Your task to perform on an android device: move an email to a new category in the gmail app Image 0: 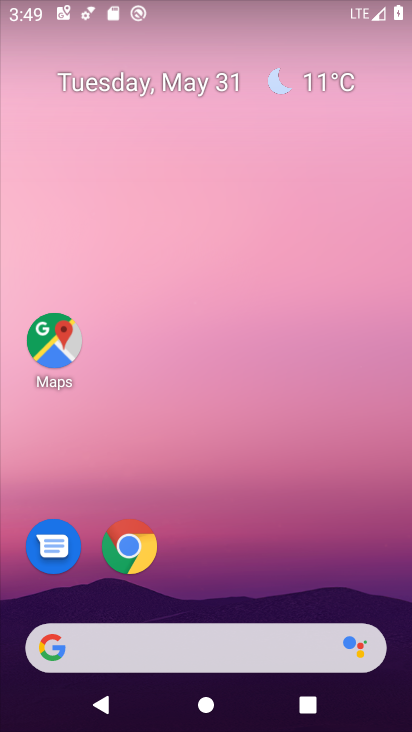
Step 0: drag from (274, 329) to (178, 27)
Your task to perform on an android device: move an email to a new category in the gmail app Image 1: 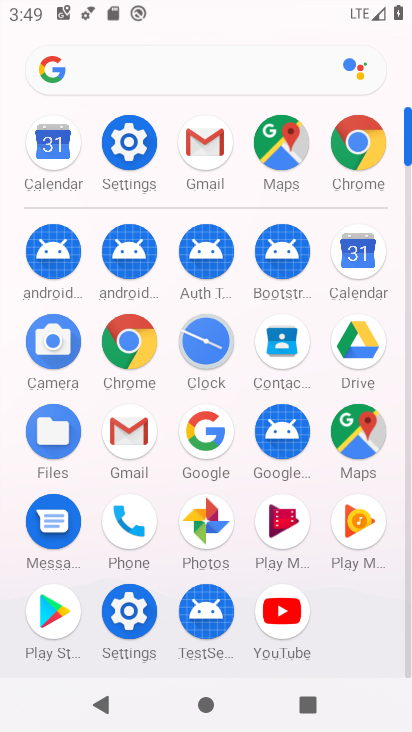
Step 1: click (208, 147)
Your task to perform on an android device: move an email to a new category in the gmail app Image 2: 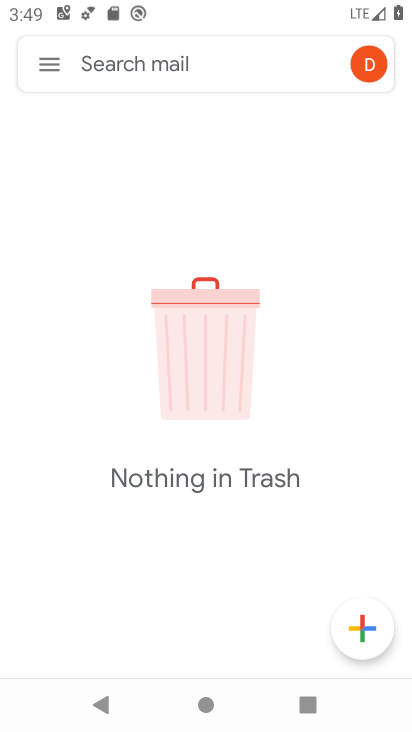
Step 2: click (52, 62)
Your task to perform on an android device: move an email to a new category in the gmail app Image 3: 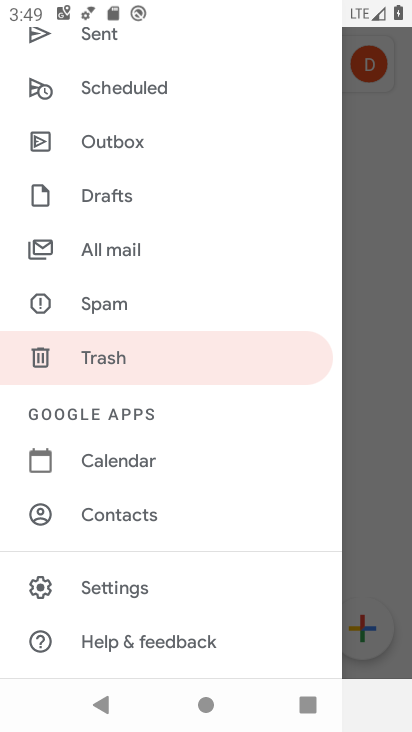
Step 3: click (361, 363)
Your task to perform on an android device: move an email to a new category in the gmail app Image 4: 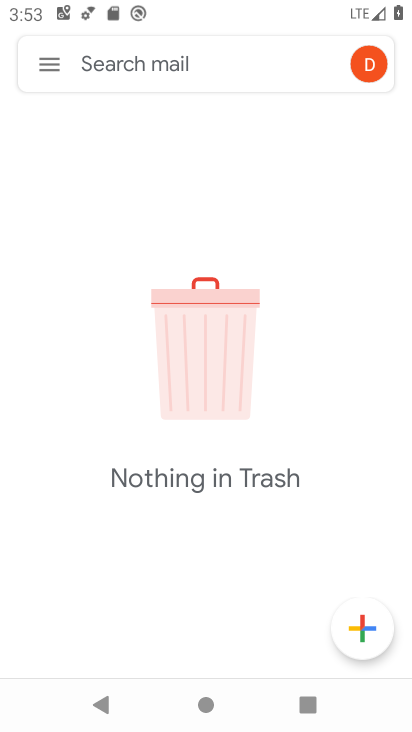
Step 4: task complete